Your task to perform on an android device: turn on location history Image 0: 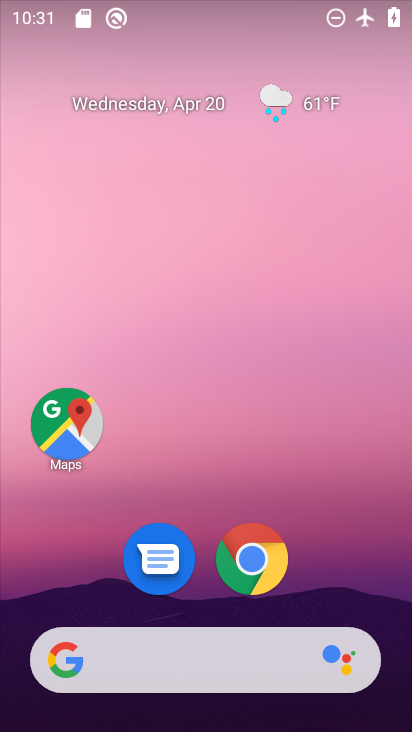
Step 0: click (62, 424)
Your task to perform on an android device: turn on location history Image 1: 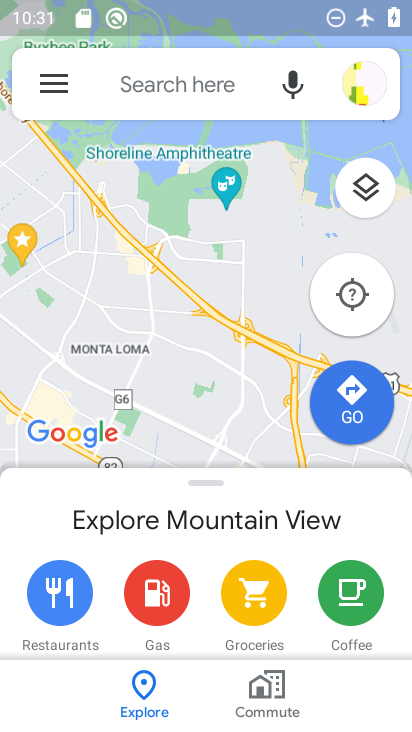
Step 1: click (51, 85)
Your task to perform on an android device: turn on location history Image 2: 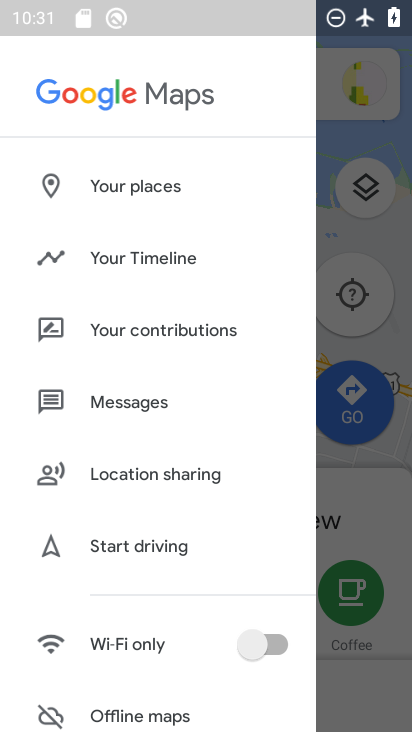
Step 2: drag from (220, 594) to (249, 366)
Your task to perform on an android device: turn on location history Image 3: 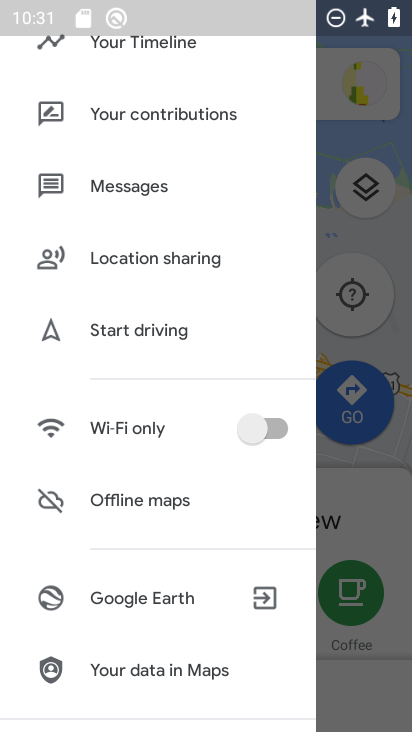
Step 3: drag from (236, 638) to (208, 407)
Your task to perform on an android device: turn on location history Image 4: 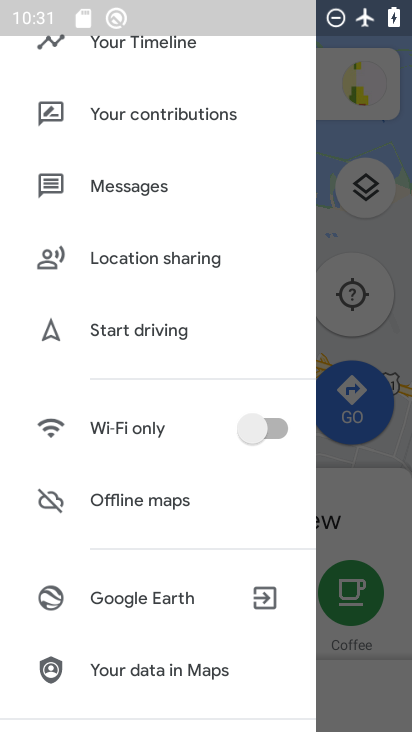
Step 4: drag from (209, 592) to (167, 254)
Your task to perform on an android device: turn on location history Image 5: 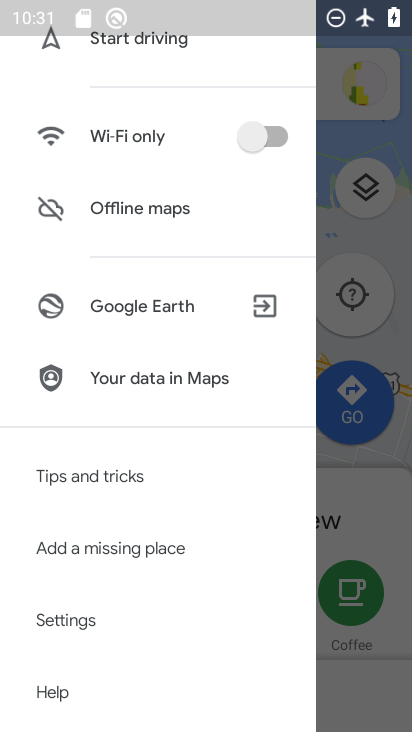
Step 5: drag from (224, 521) to (208, 277)
Your task to perform on an android device: turn on location history Image 6: 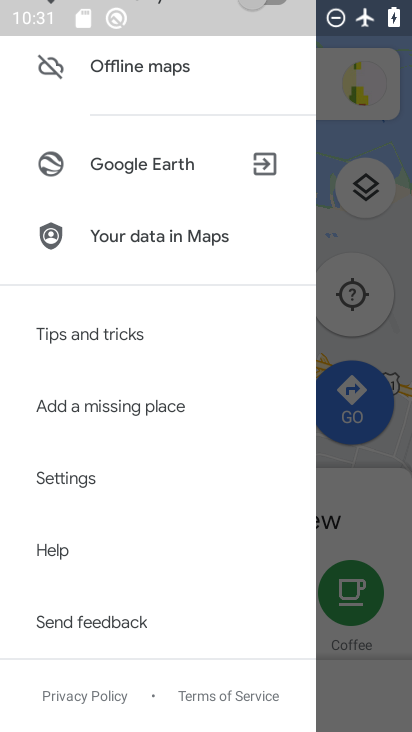
Step 6: click (67, 476)
Your task to perform on an android device: turn on location history Image 7: 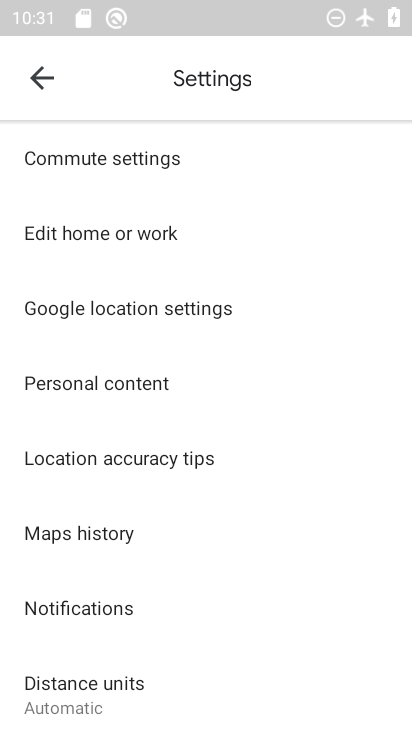
Step 7: click (85, 377)
Your task to perform on an android device: turn on location history Image 8: 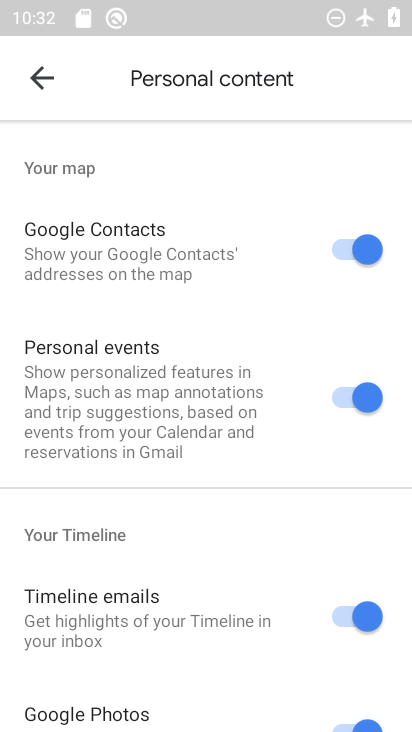
Step 8: task complete